Your task to perform on an android device: Open the map Image 0: 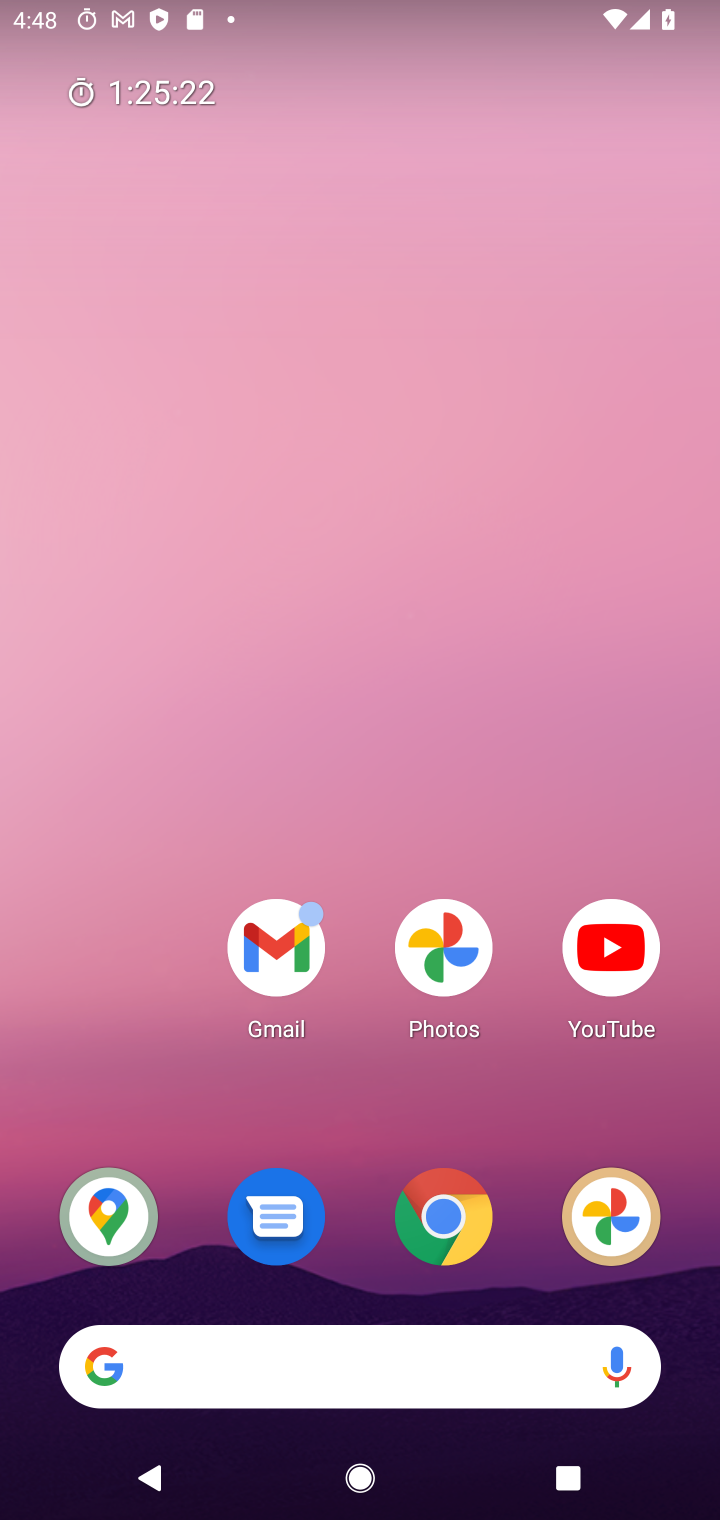
Step 0: click (118, 1204)
Your task to perform on an android device: Open the map Image 1: 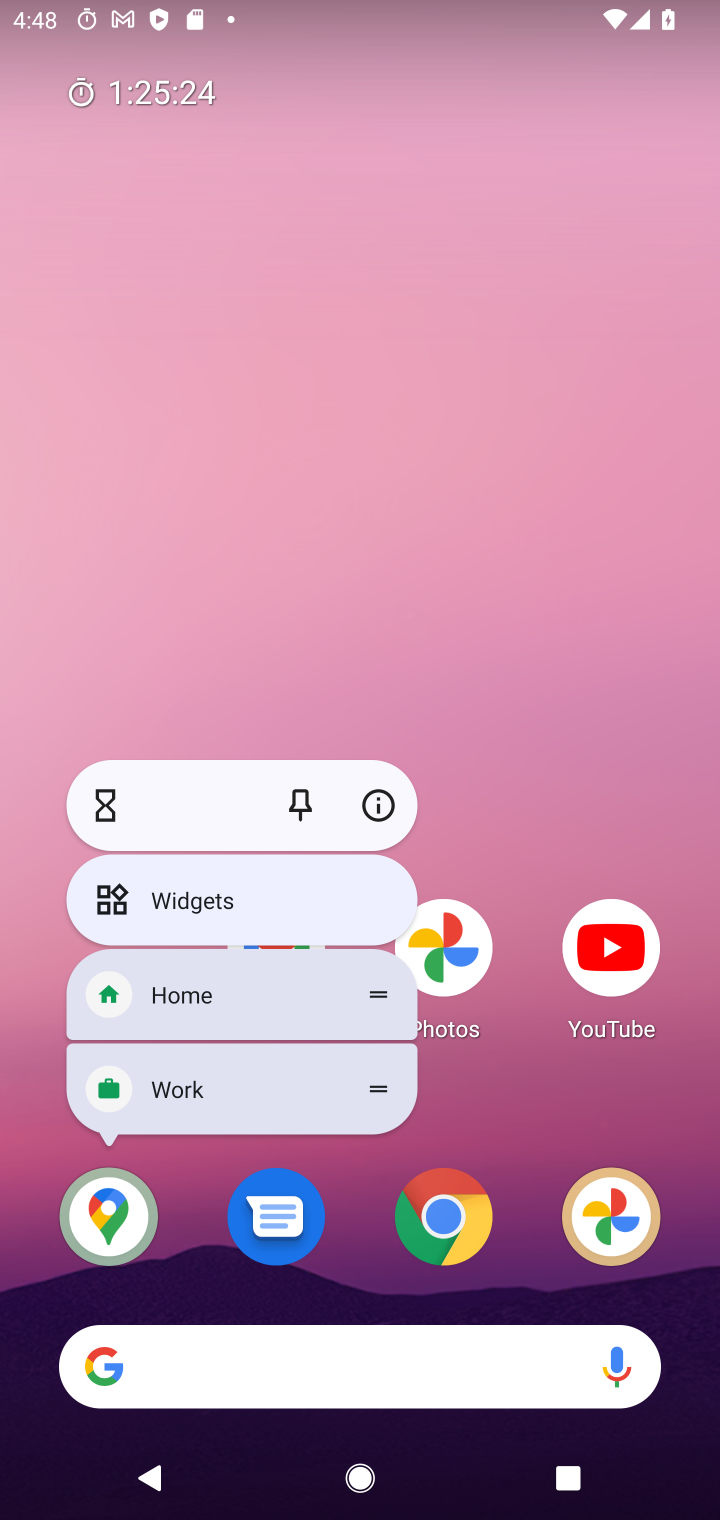
Step 1: click (118, 1200)
Your task to perform on an android device: Open the map Image 2: 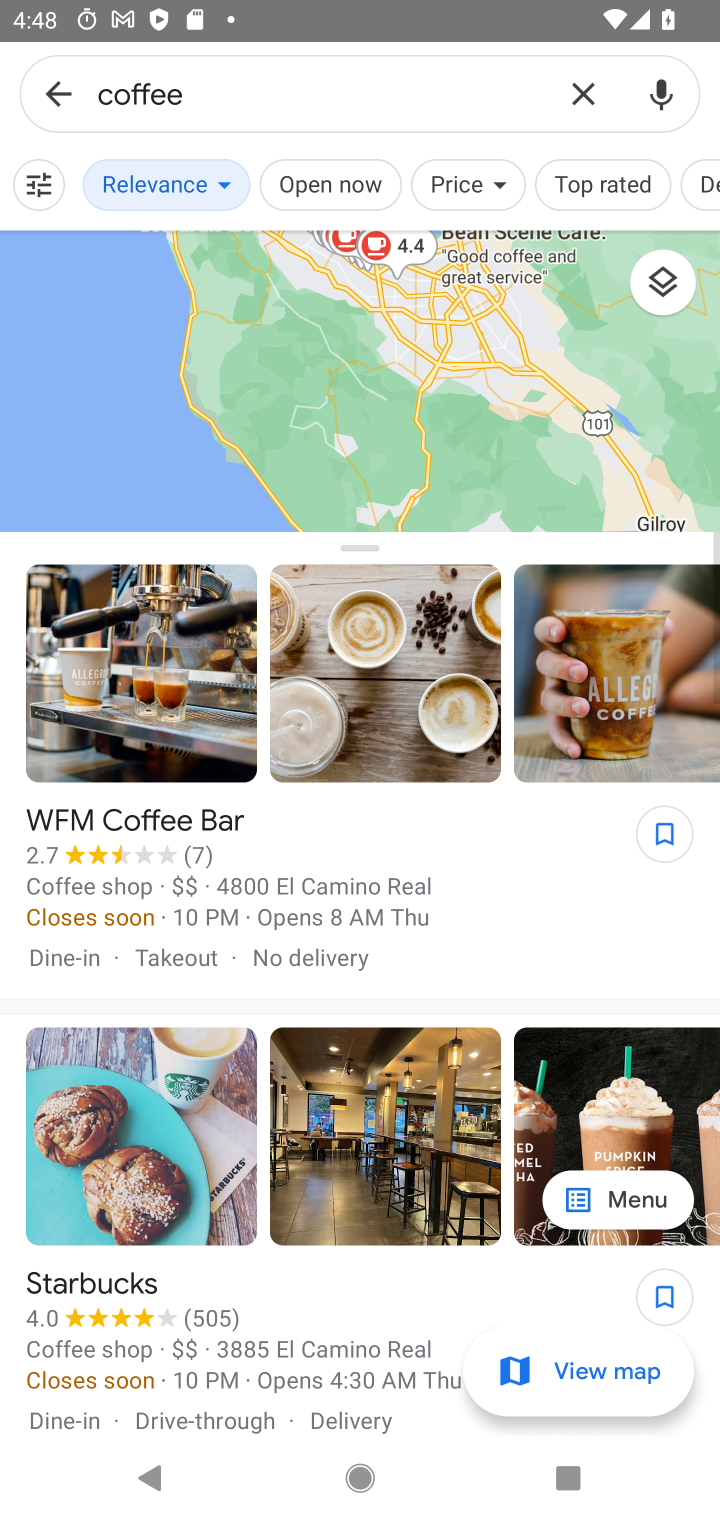
Step 2: click (584, 86)
Your task to perform on an android device: Open the map Image 3: 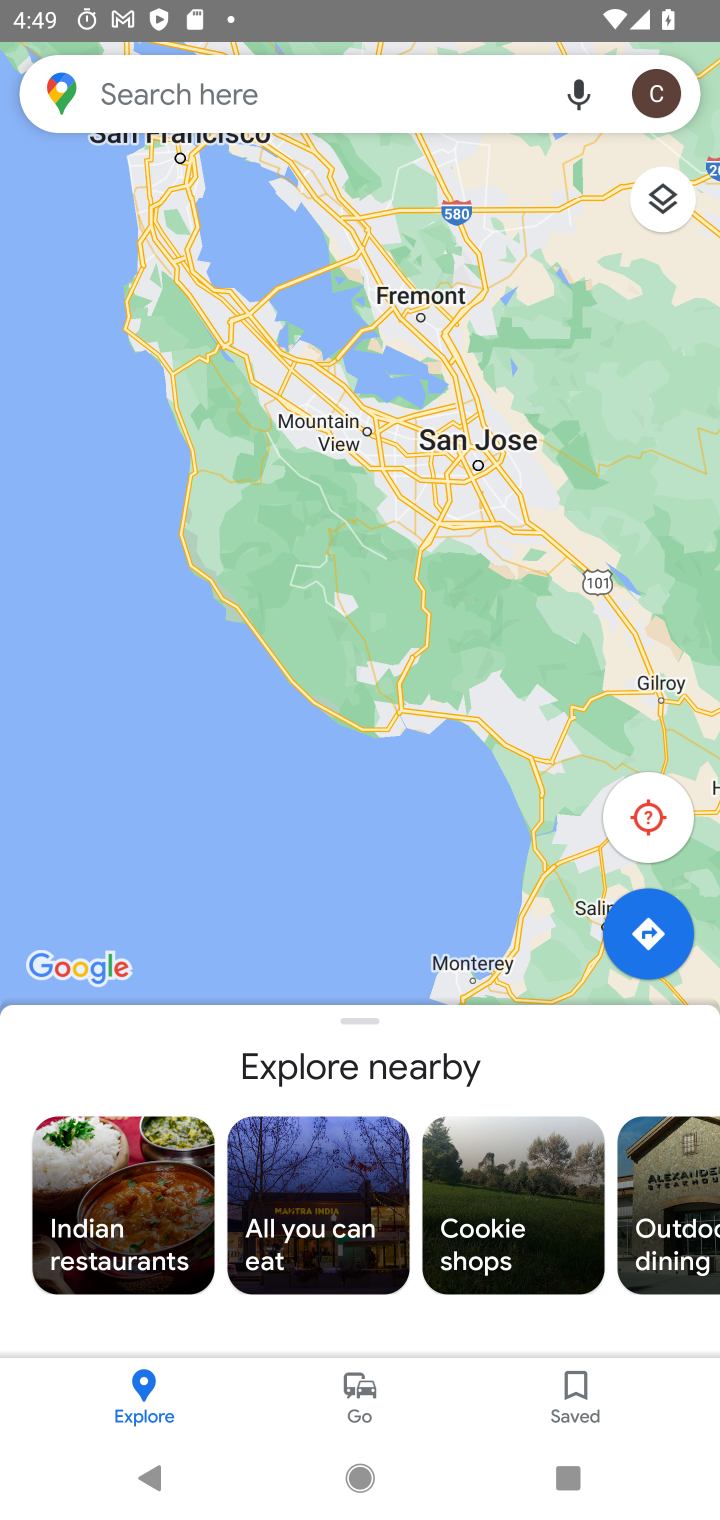
Step 3: task complete